Your task to perform on an android device: delete location history Image 0: 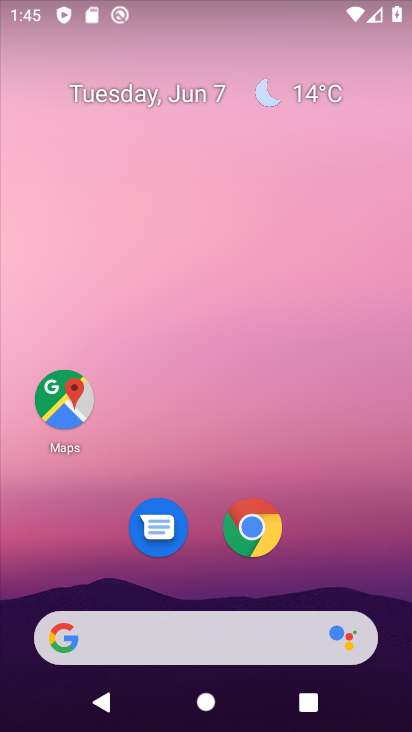
Step 0: drag from (378, 566) to (251, 170)
Your task to perform on an android device: delete location history Image 1: 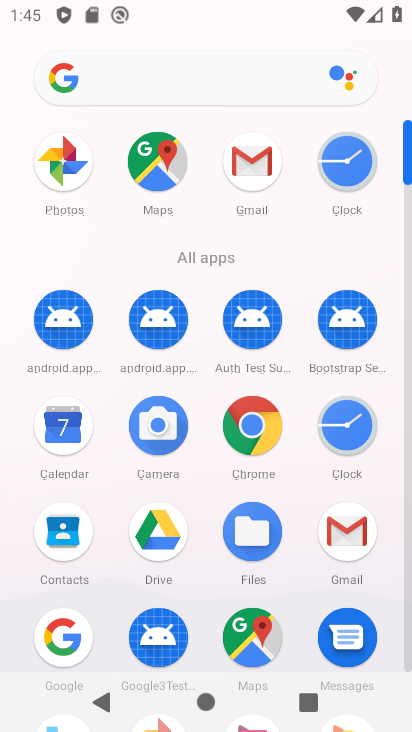
Step 1: click (160, 161)
Your task to perform on an android device: delete location history Image 2: 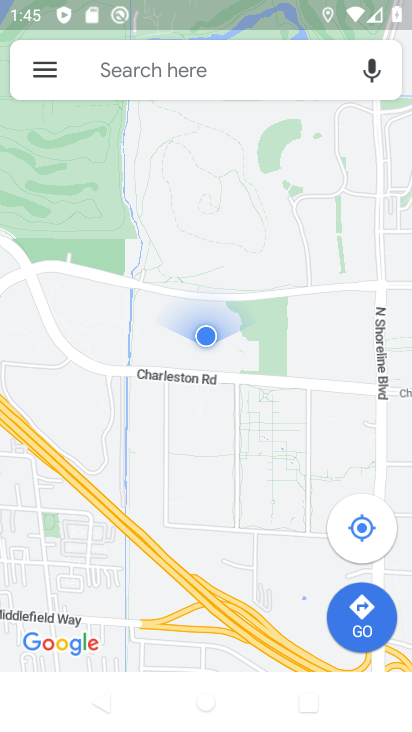
Step 2: click (40, 77)
Your task to perform on an android device: delete location history Image 3: 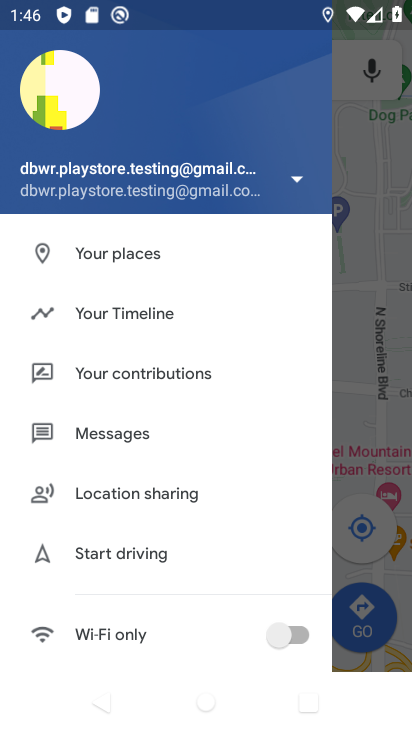
Step 3: click (108, 315)
Your task to perform on an android device: delete location history Image 4: 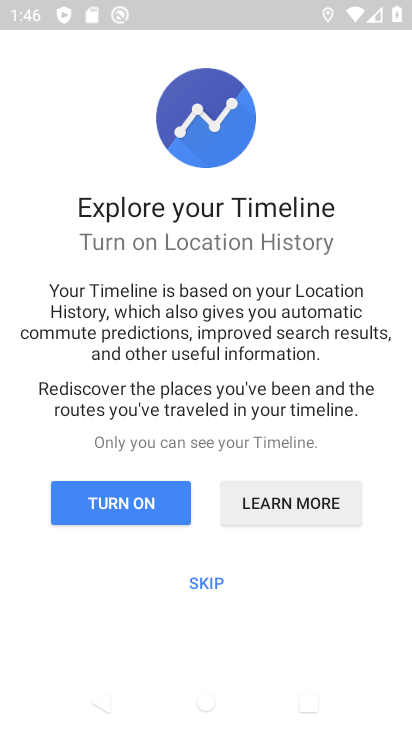
Step 4: click (209, 583)
Your task to perform on an android device: delete location history Image 5: 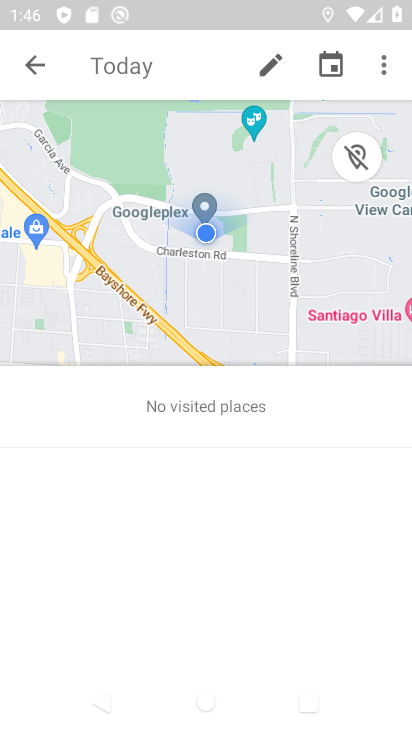
Step 5: click (379, 64)
Your task to perform on an android device: delete location history Image 6: 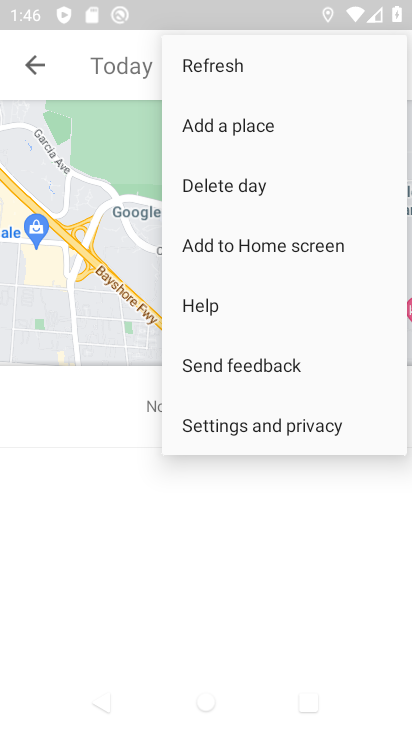
Step 6: click (301, 435)
Your task to perform on an android device: delete location history Image 7: 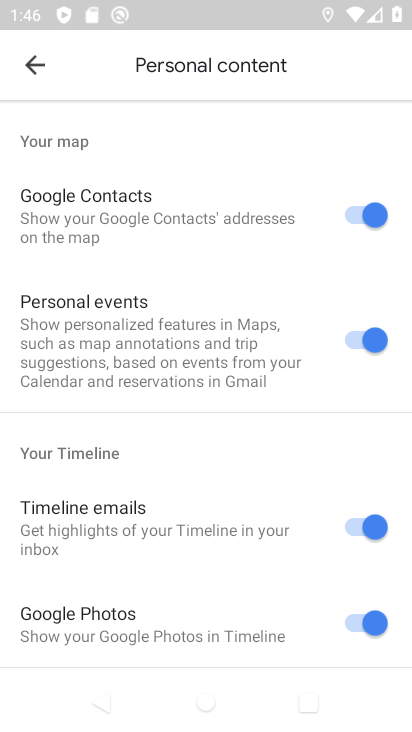
Step 7: drag from (243, 642) to (168, 0)
Your task to perform on an android device: delete location history Image 8: 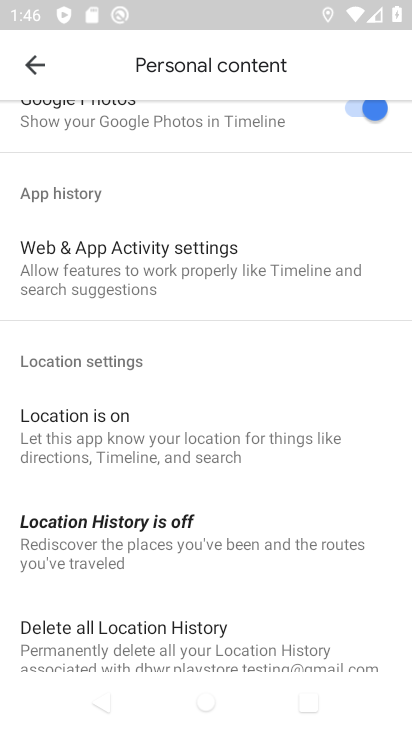
Step 8: click (214, 657)
Your task to perform on an android device: delete location history Image 9: 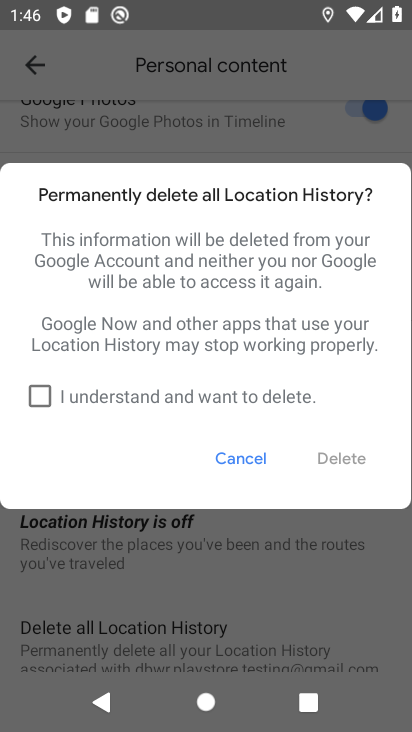
Step 9: click (199, 401)
Your task to perform on an android device: delete location history Image 10: 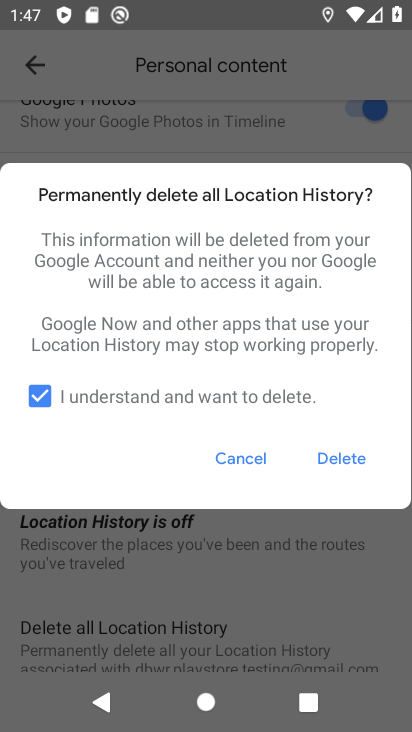
Step 10: click (361, 460)
Your task to perform on an android device: delete location history Image 11: 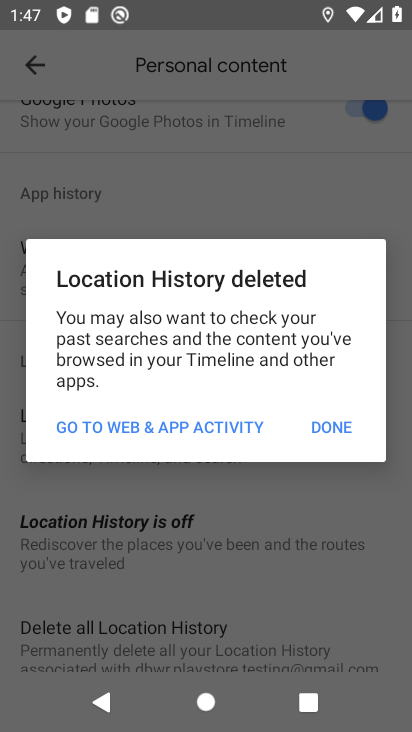
Step 11: click (343, 432)
Your task to perform on an android device: delete location history Image 12: 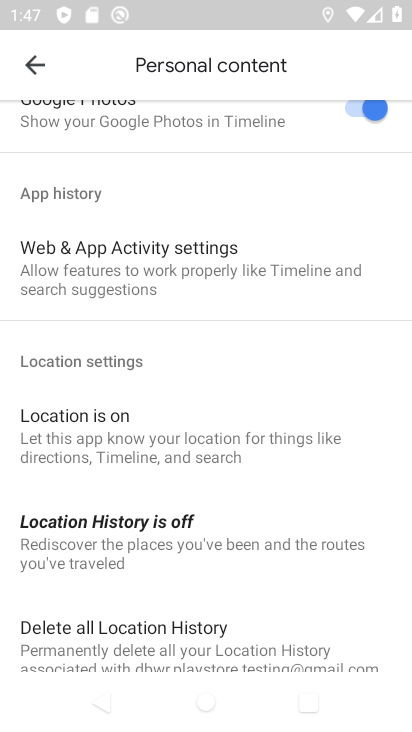
Step 12: task complete